Your task to perform on an android device: What's the price of the Vizio TV? Image 0: 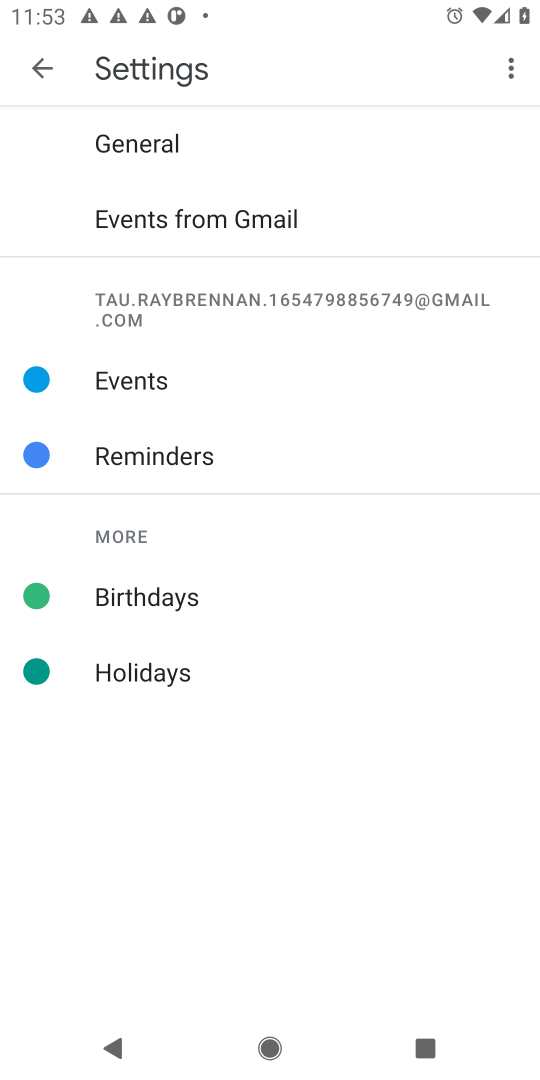
Step 0: press home button
Your task to perform on an android device: What's the price of the Vizio TV? Image 1: 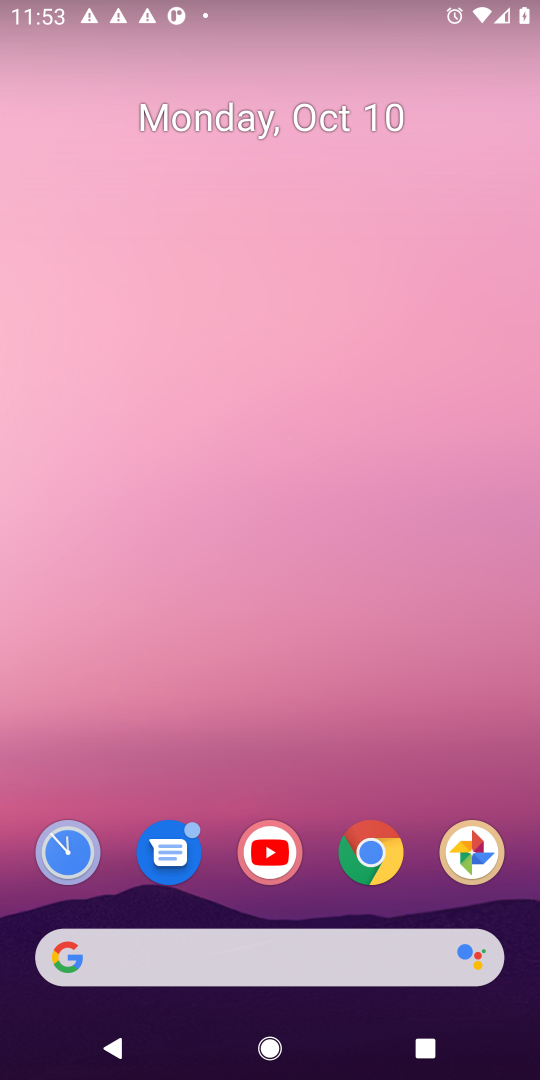
Step 1: click (364, 835)
Your task to perform on an android device: What's the price of the Vizio TV? Image 2: 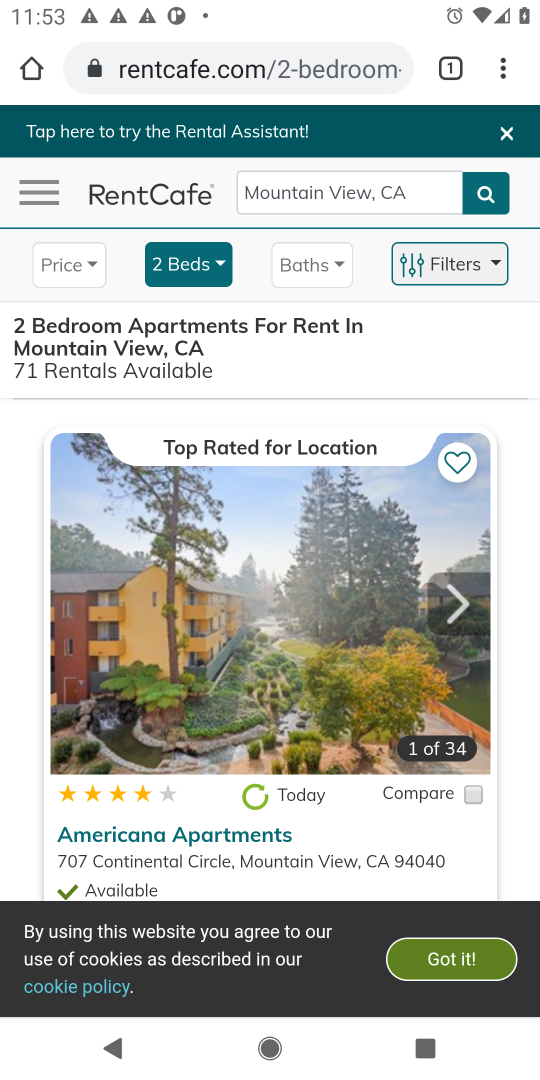
Step 2: click (248, 62)
Your task to perform on an android device: What's the price of the Vizio TV? Image 3: 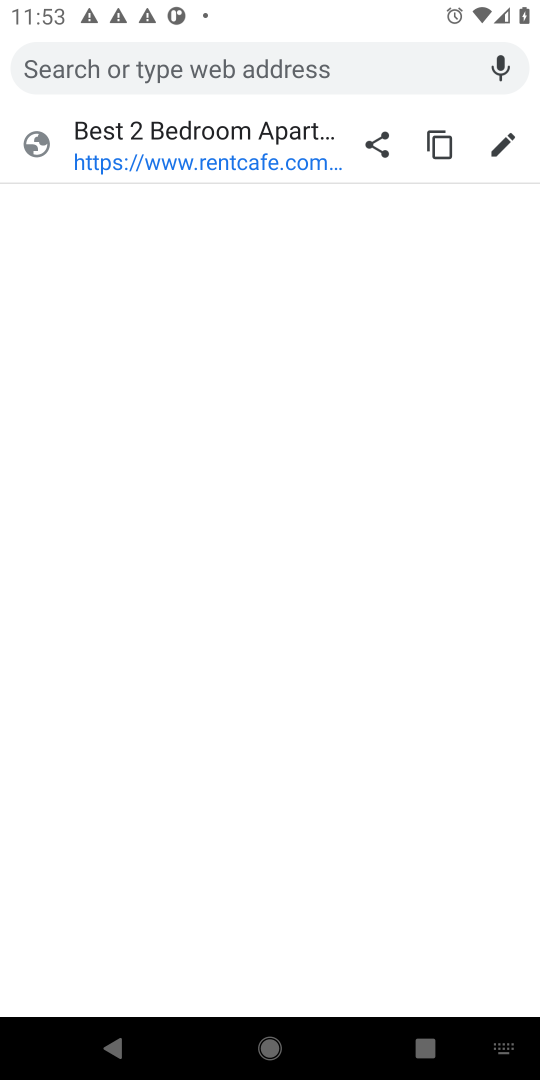
Step 3: type "What's the price of the Vizio TV?"
Your task to perform on an android device: What's the price of the Vizio TV? Image 4: 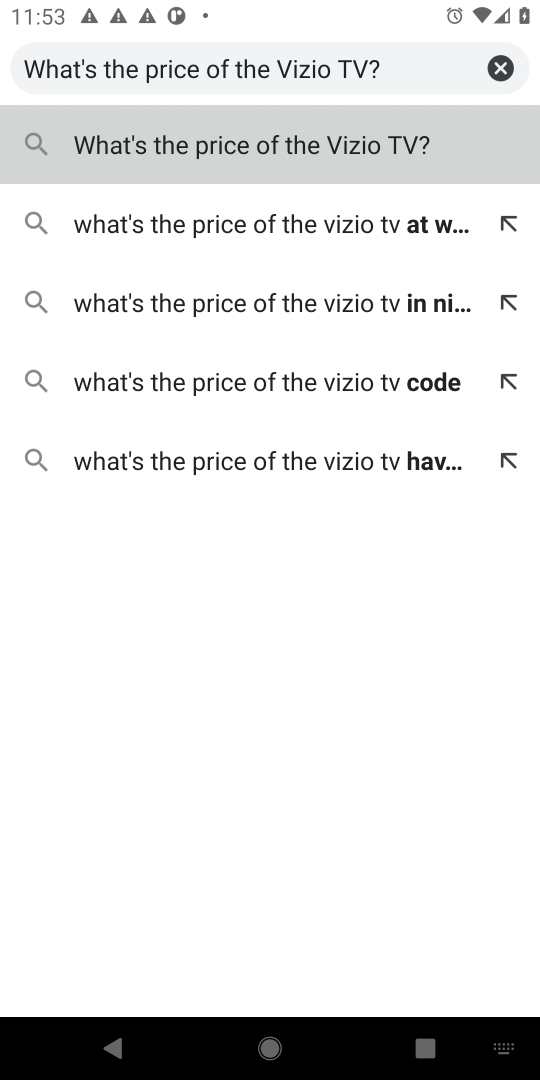
Step 4: click (286, 142)
Your task to perform on an android device: What's the price of the Vizio TV? Image 5: 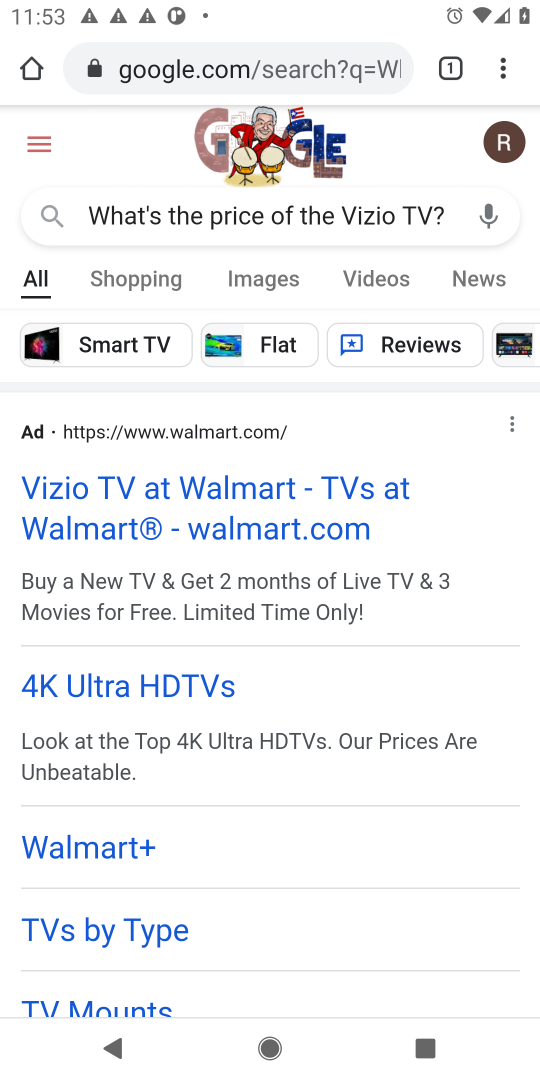
Step 5: click (120, 287)
Your task to perform on an android device: What's the price of the Vizio TV? Image 6: 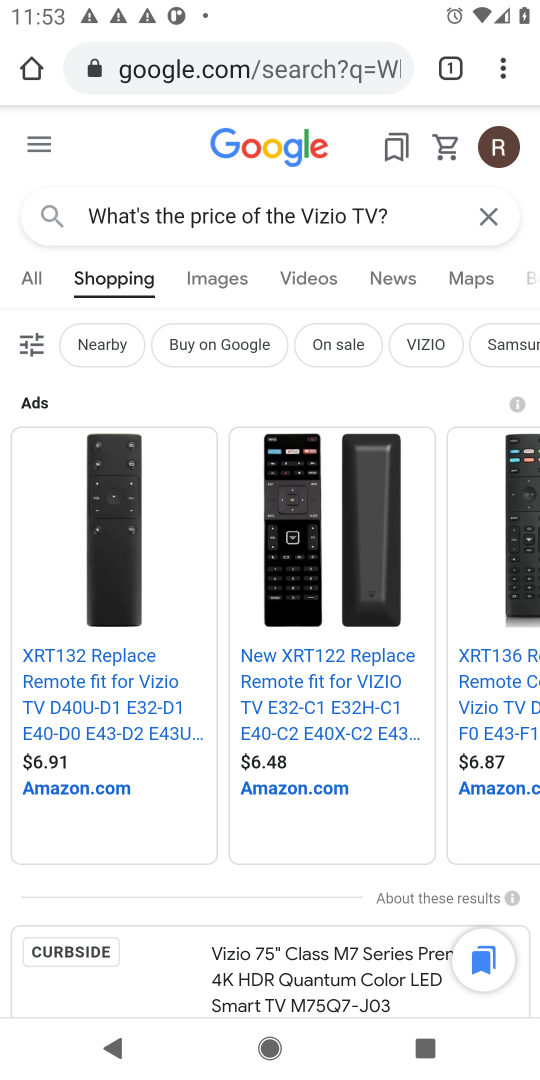
Step 6: click (48, 284)
Your task to perform on an android device: What's the price of the Vizio TV? Image 7: 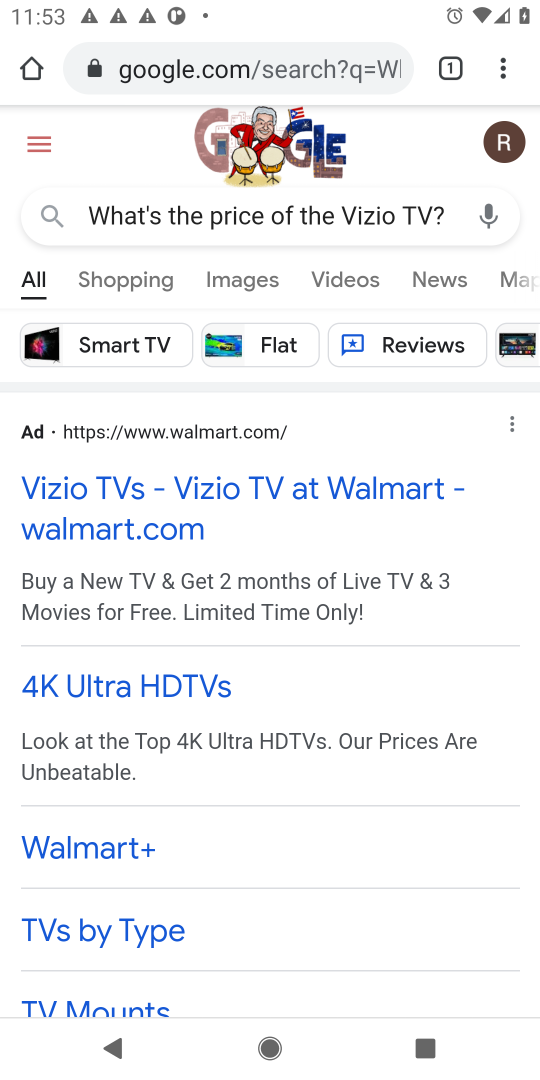
Step 7: task complete